Your task to perform on an android device: Install the eBay app Image 0: 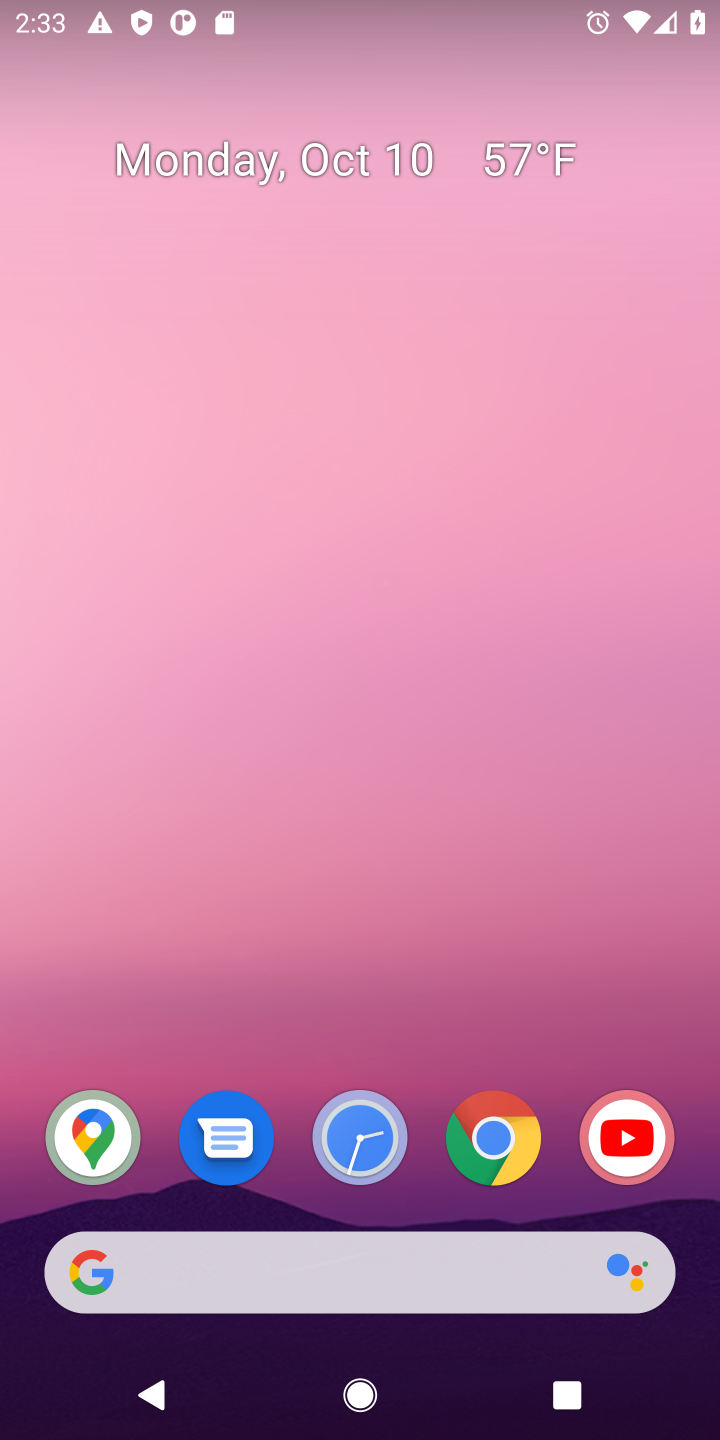
Step 0: drag from (400, 1039) to (380, 416)
Your task to perform on an android device: Install the eBay app Image 1: 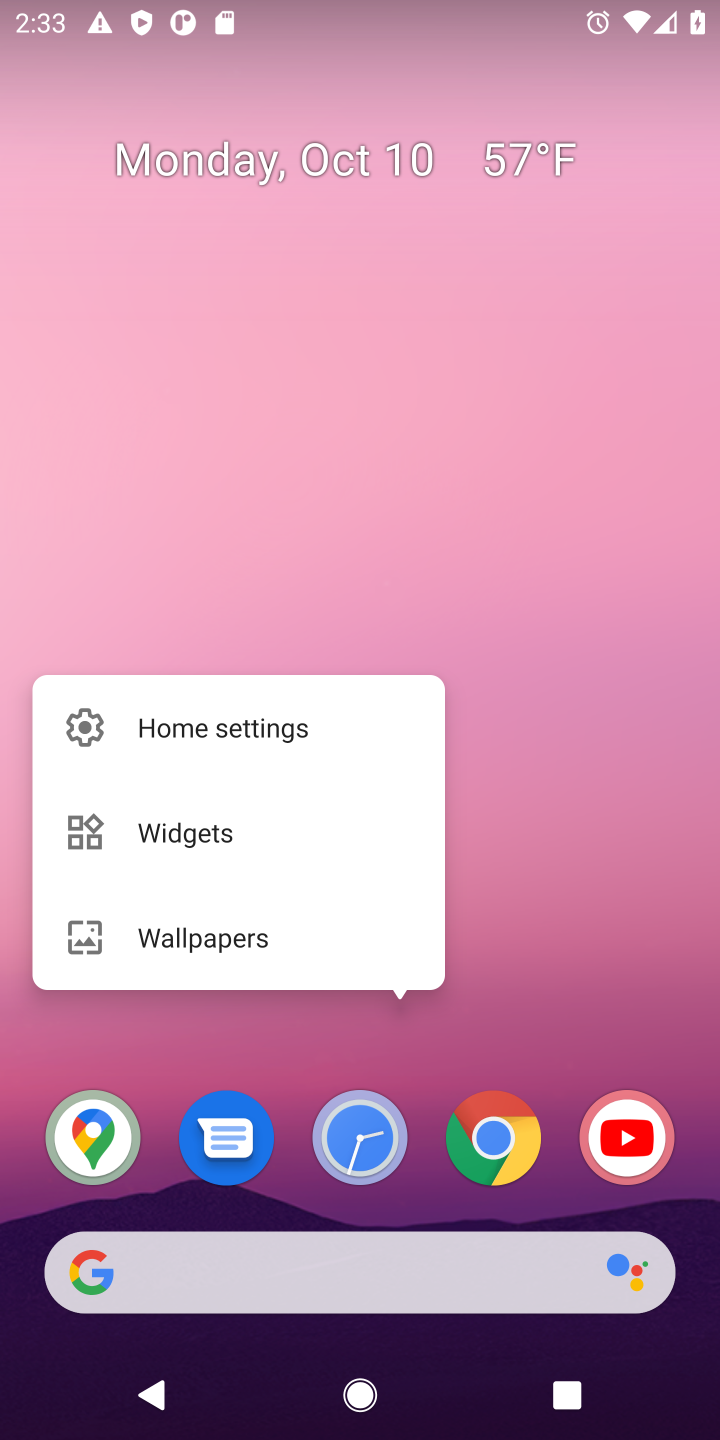
Step 1: click (380, 416)
Your task to perform on an android device: Install the eBay app Image 2: 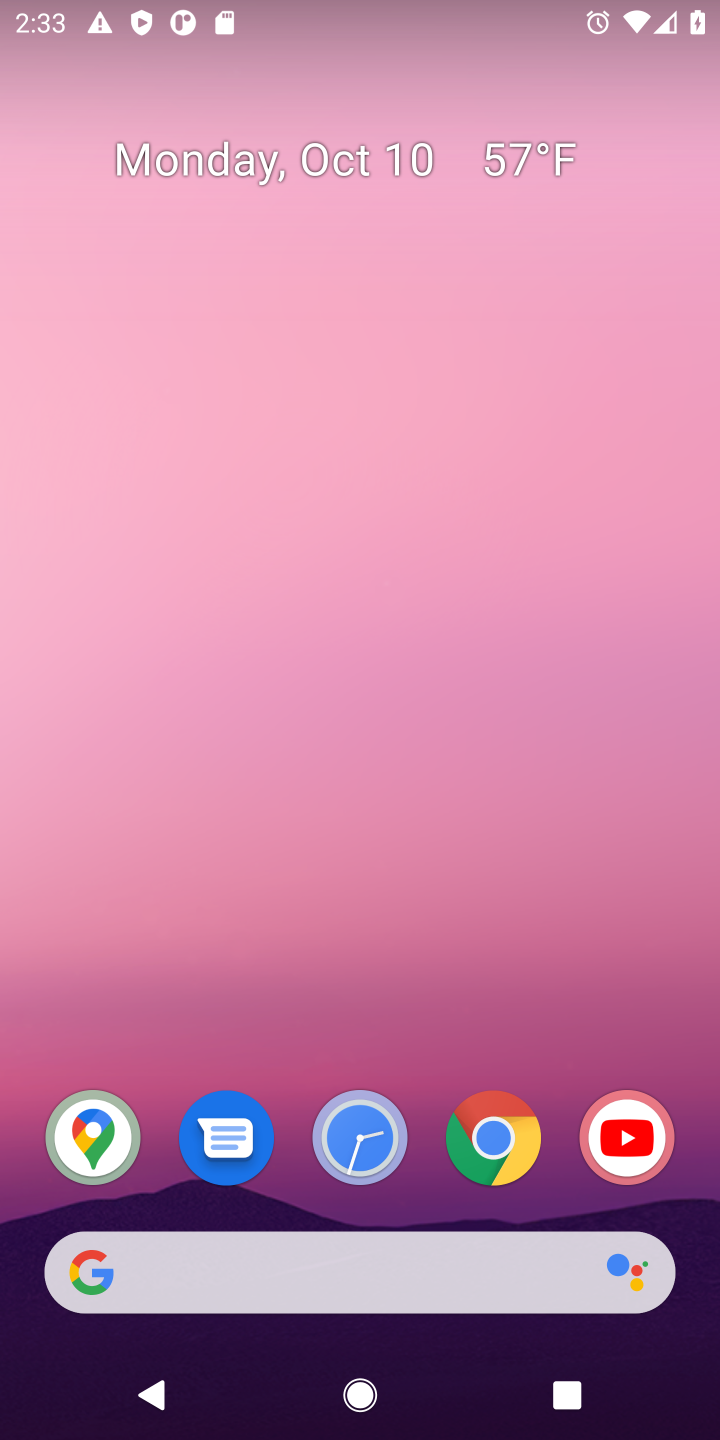
Step 2: drag from (439, 1015) to (376, 17)
Your task to perform on an android device: Install the eBay app Image 3: 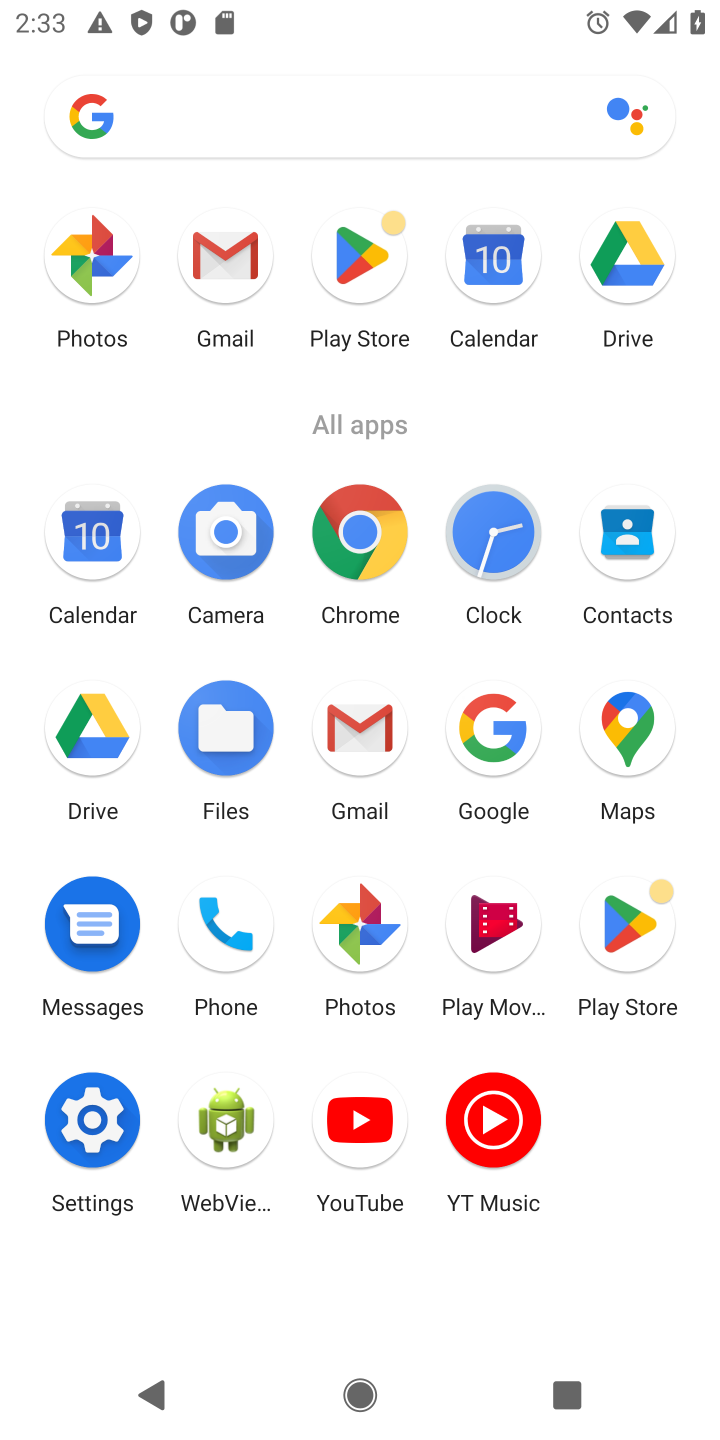
Step 3: click (340, 259)
Your task to perform on an android device: Install the eBay app Image 4: 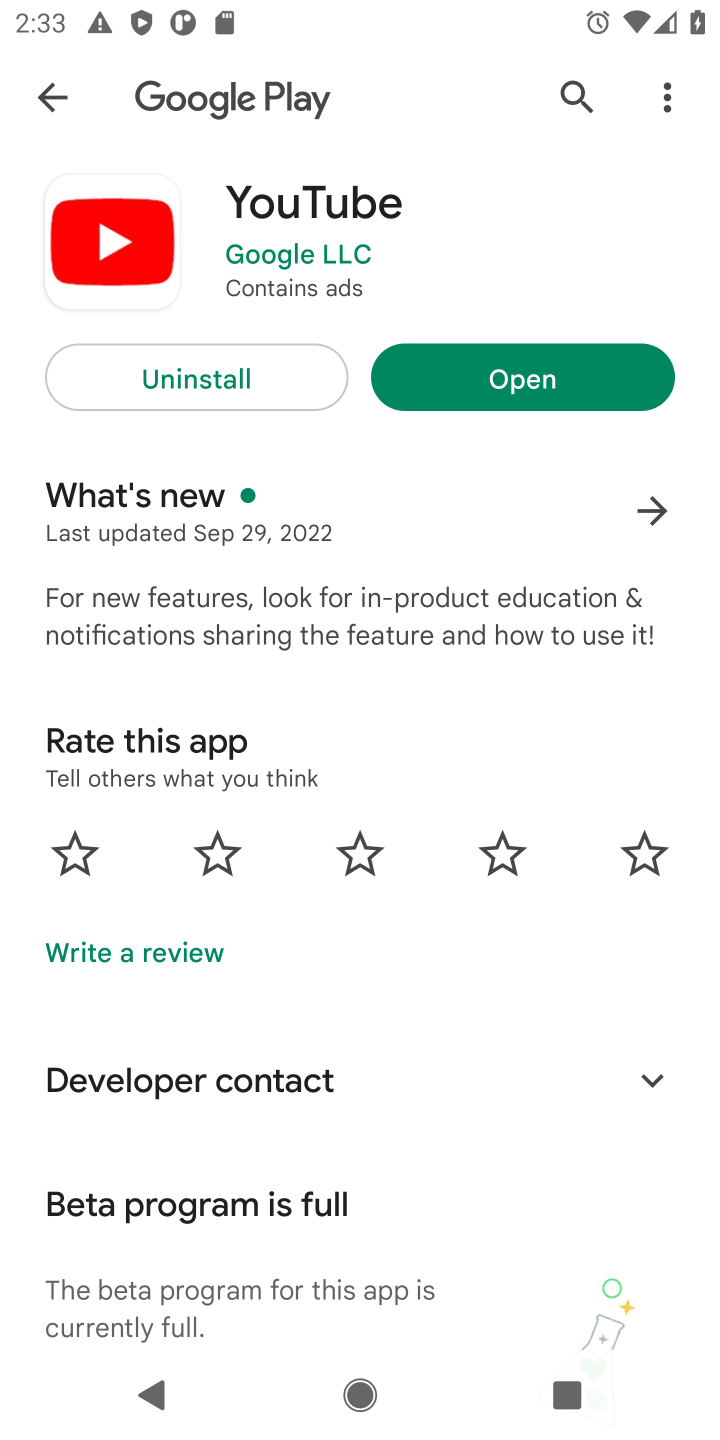
Step 4: click (54, 91)
Your task to perform on an android device: Install the eBay app Image 5: 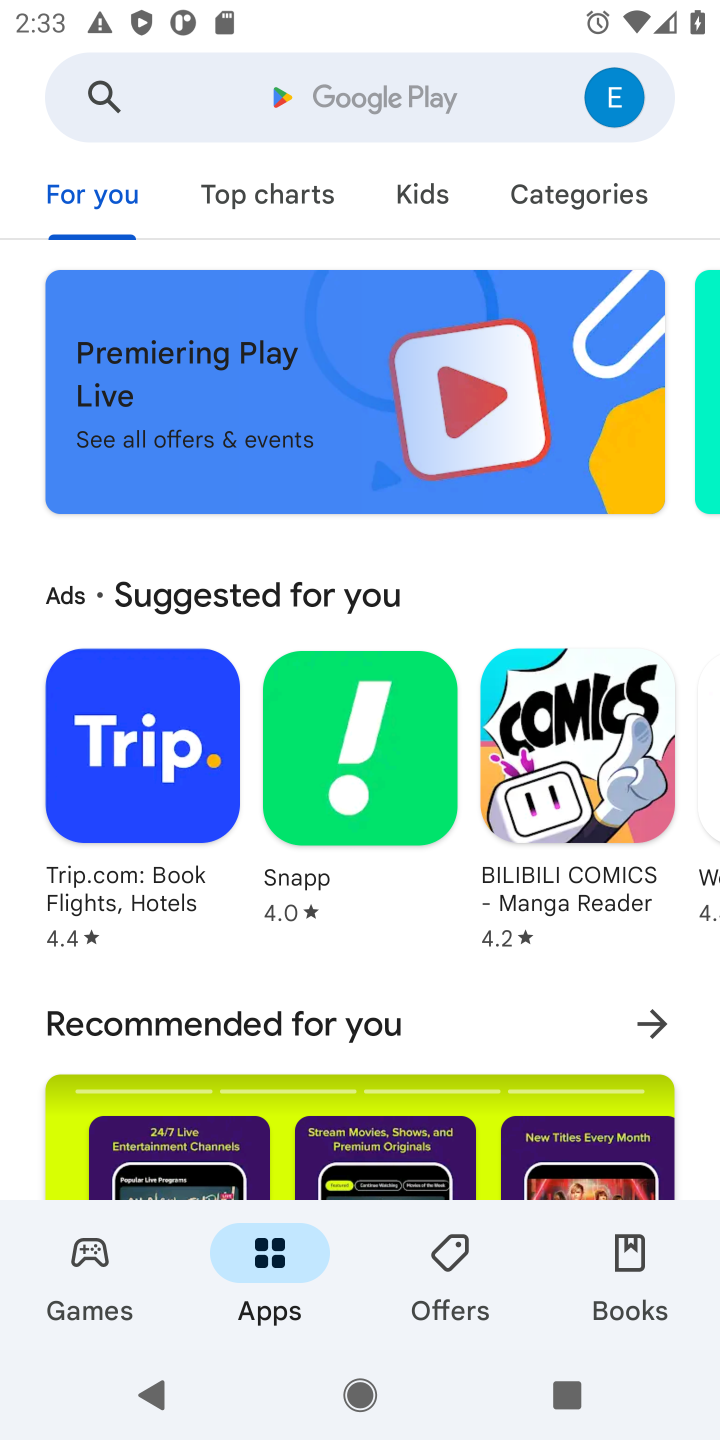
Step 5: click (398, 91)
Your task to perform on an android device: Install the eBay app Image 6: 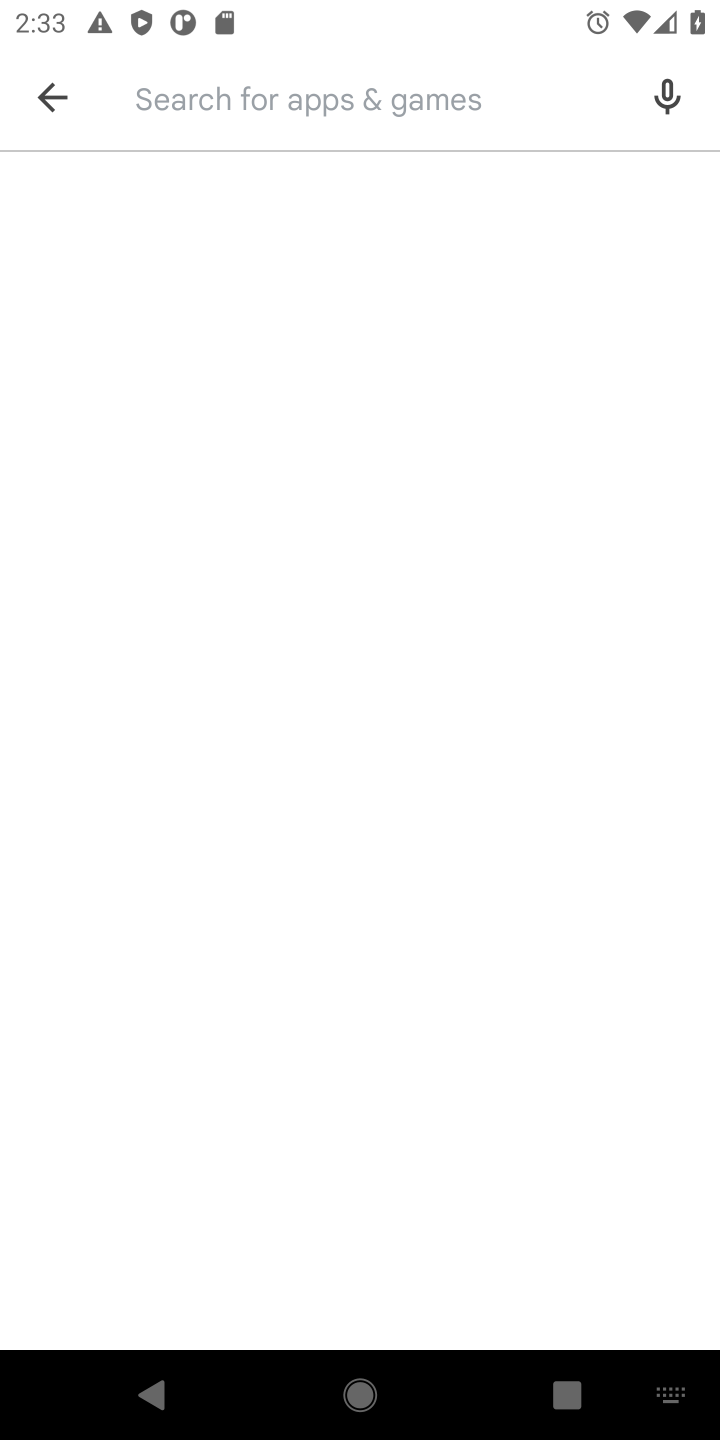
Step 6: type "ebay app"
Your task to perform on an android device: Install the eBay app Image 7: 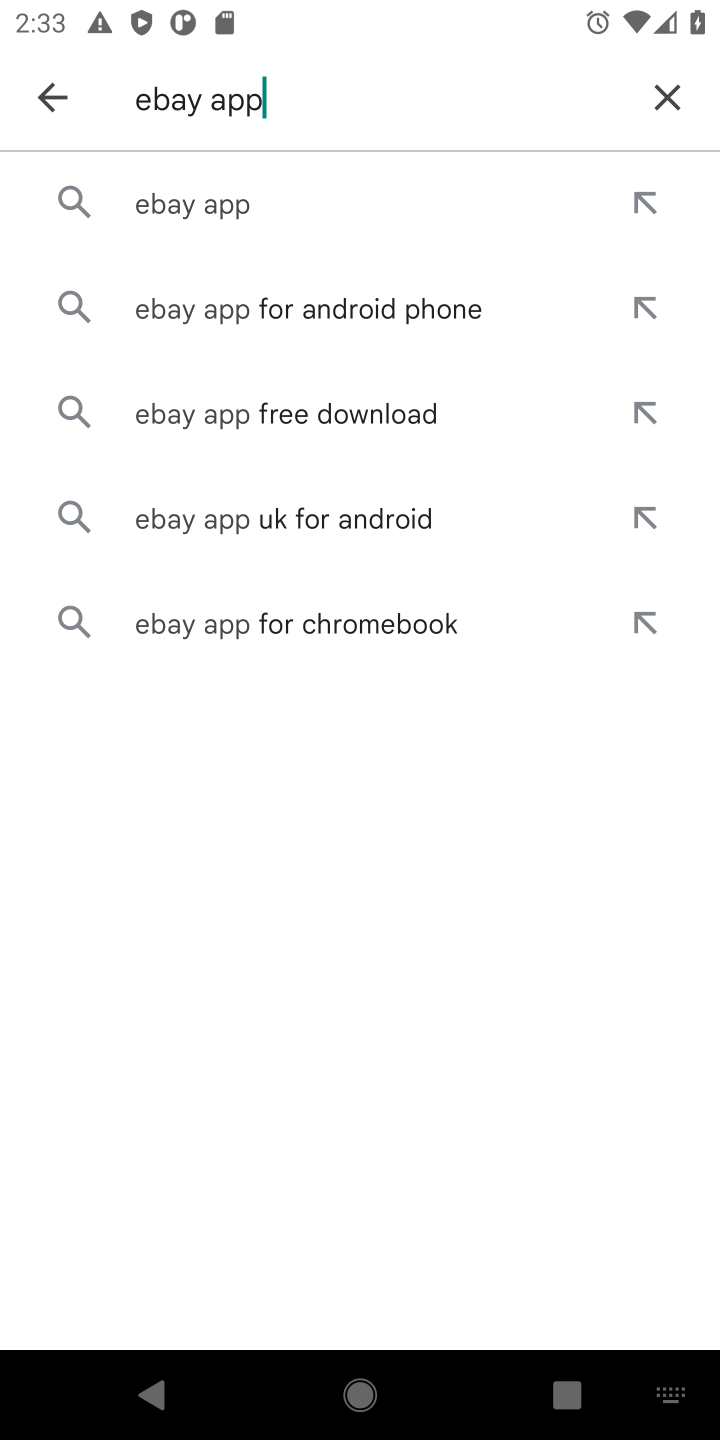
Step 7: click (171, 201)
Your task to perform on an android device: Install the eBay app Image 8: 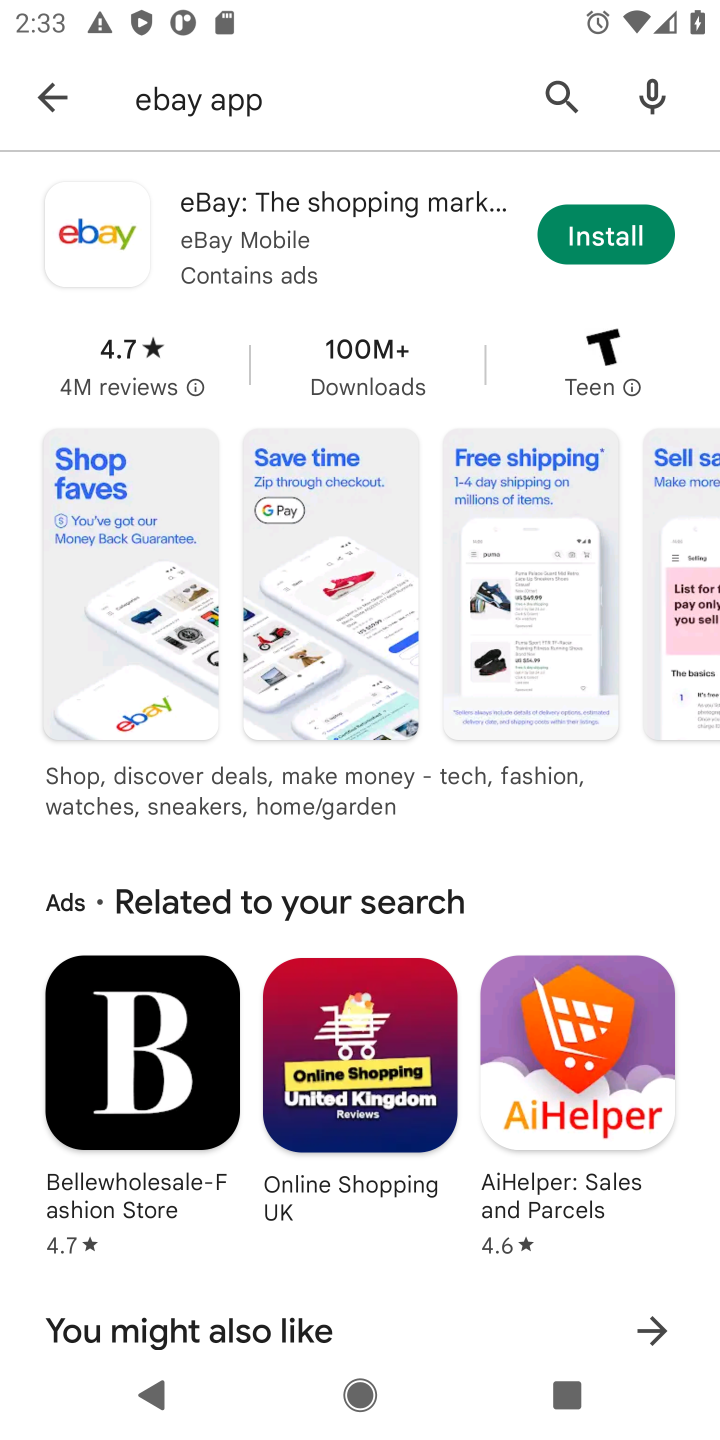
Step 8: click (568, 239)
Your task to perform on an android device: Install the eBay app Image 9: 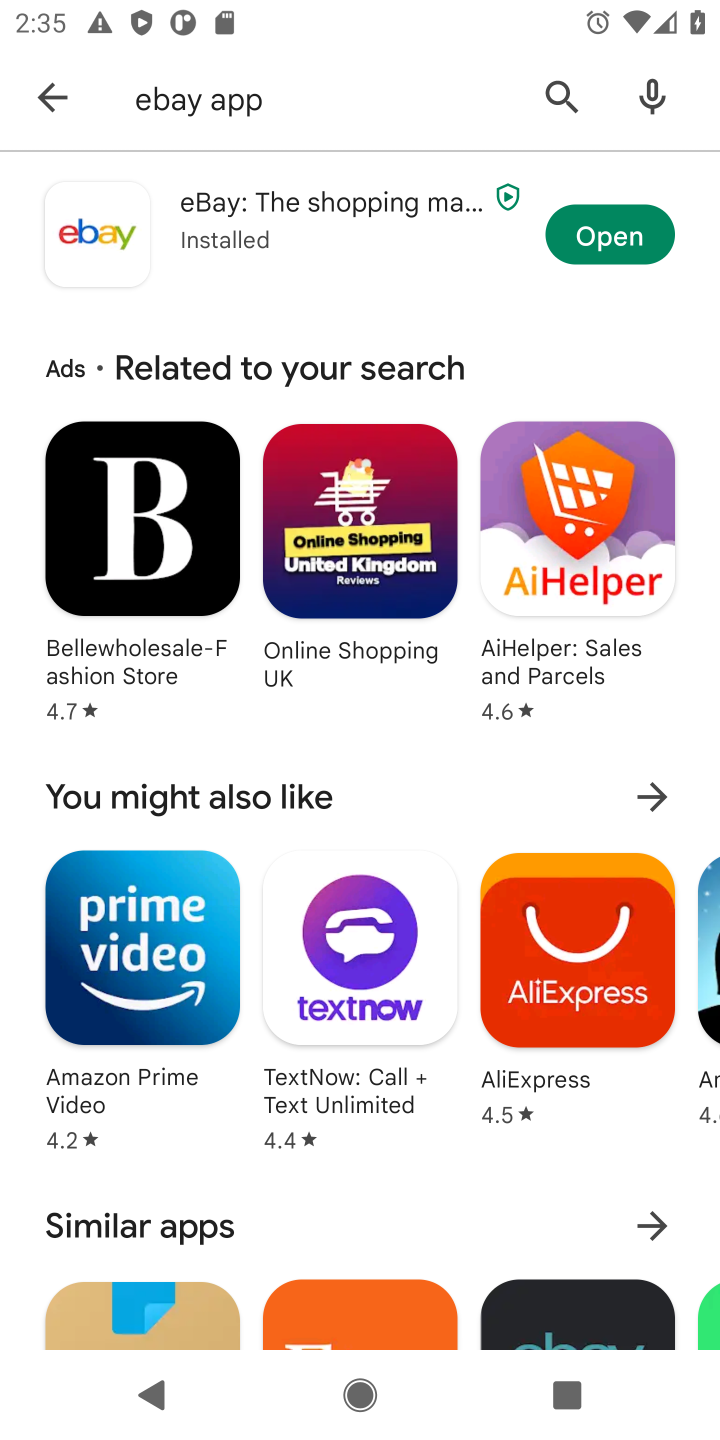
Step 9: task complete